Your task to perform on an android device: Search for pizza restaurants on Maps Image 0: 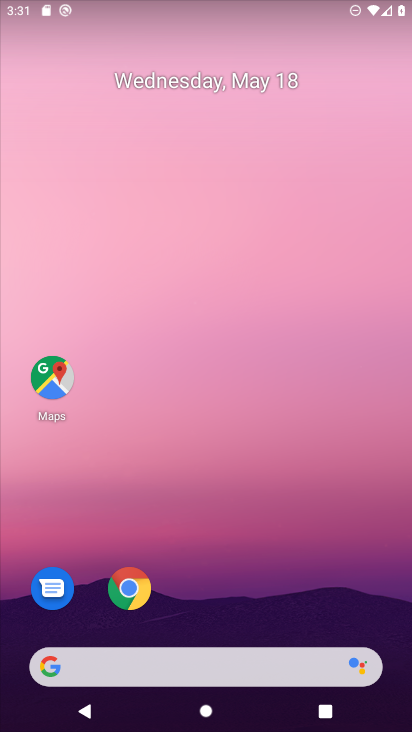
Step 0: click (64, 396)
Your task to perform on an android device: Search for pizza restaurants on Maps Image 1: 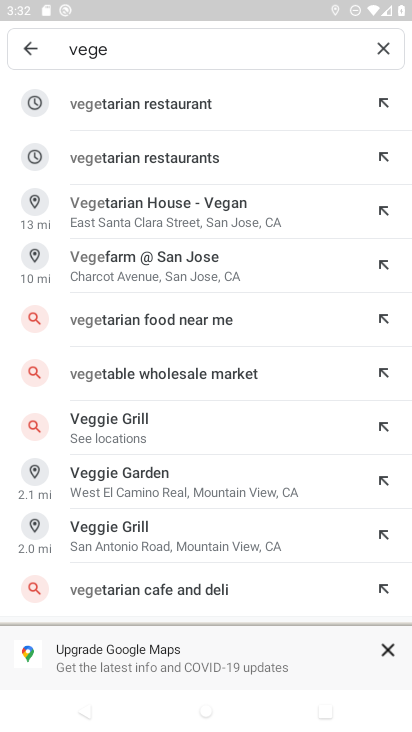
Step 1: click (381, 52)
Your task to perform on an android device: Search for pizza restaurants on Maps Image 2: 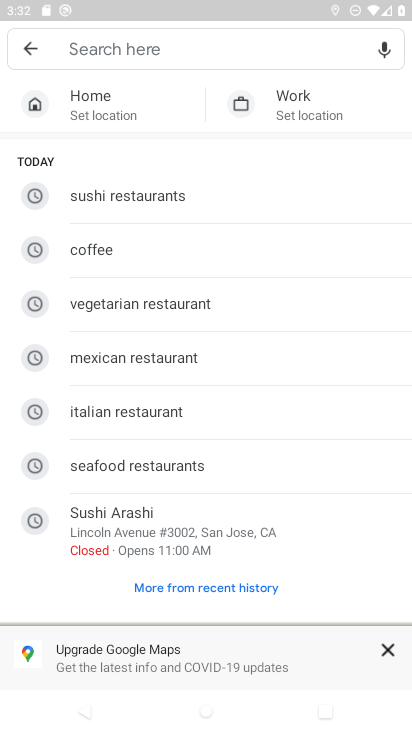
Step 2: click (292, 56)
Your task to perform on an android device: Search for pizza restaurants on Maps Image 3: 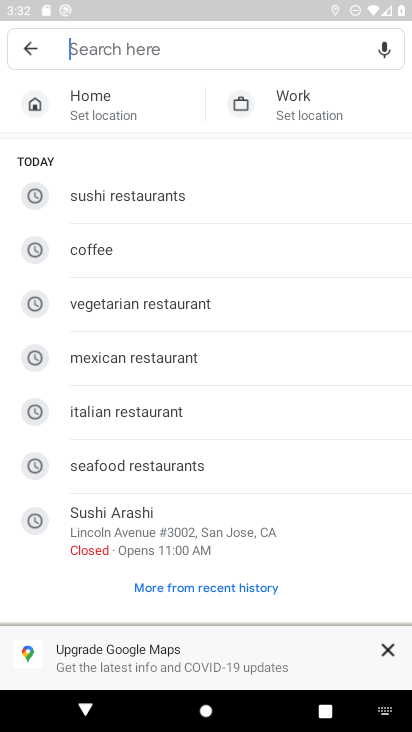
Step 3: type "pizza"
Your task to perform on an android device: Search for pizza restaurants on Maps Image 4: 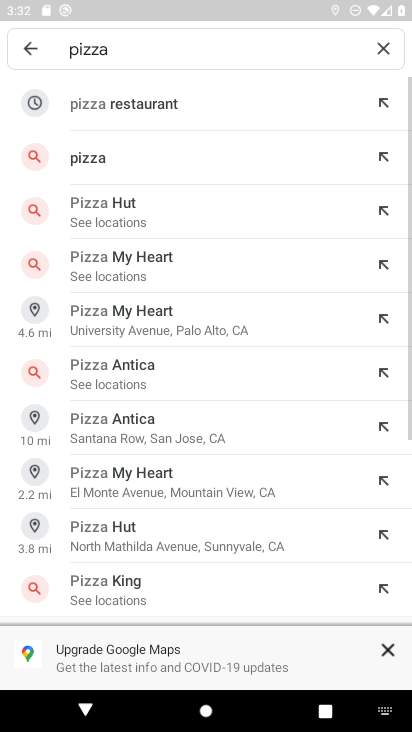
Step 4: click (204, 97)
Your task to perform on an android device: Search for pizza restaurants on Maps Image 5: 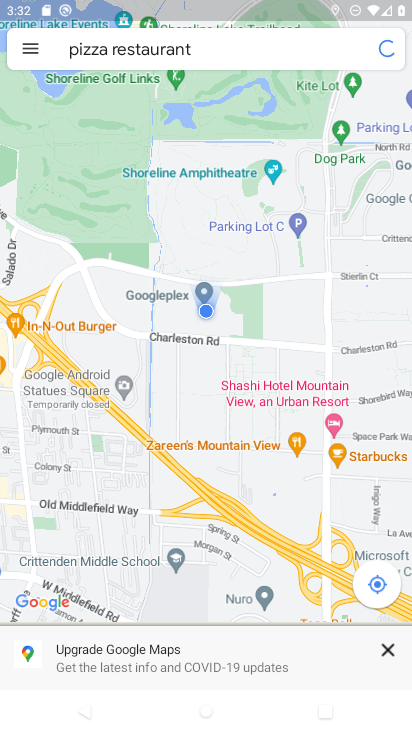
Step 5: task complete